Your task to perform on an android device: Open calendar and show me the second week of next month Image 0: 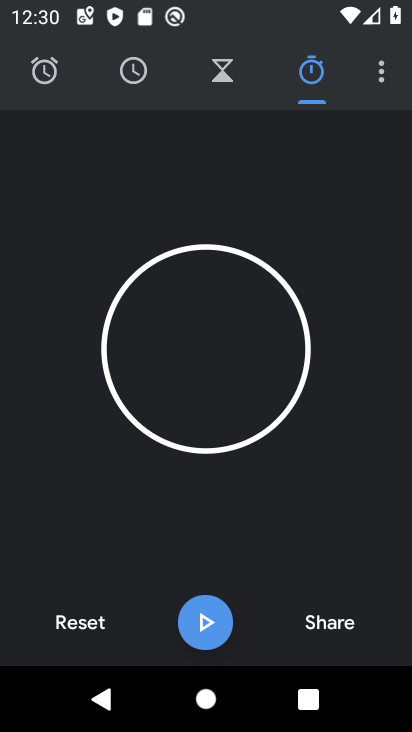
Step 0: press home button
Your task to perform on an android device: Open calendar and show me the second week of next month Image 1: 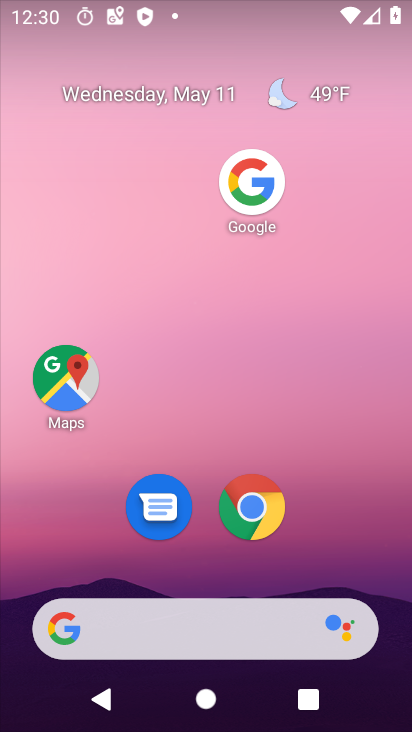
Step 1: drag from (203, 556) to (186, 85)
Your task to perform on an android device: Open calendar and show me the second week of next month Image 2: 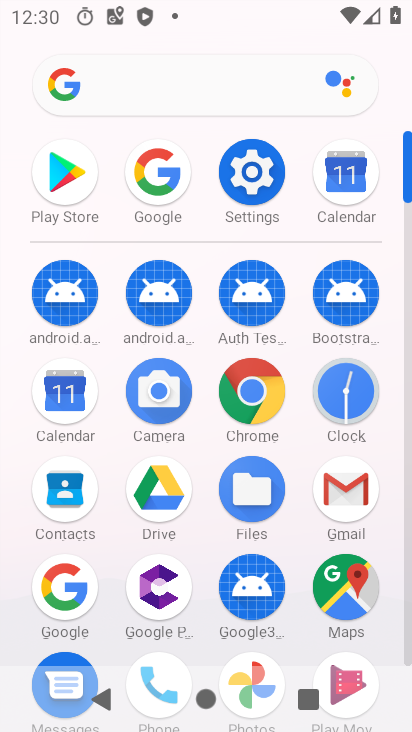
Step 2: click (57, 395)
Your task to perform on an android device: Open calendar and show me the second week of next month Image 3: 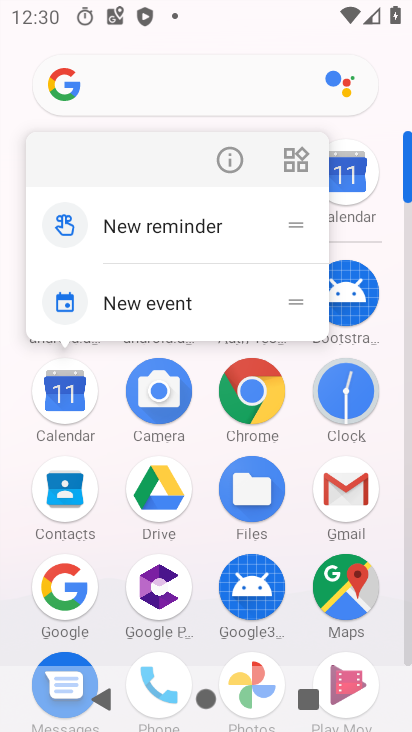
Step 3: click (58, 400)
Your task to perform on an android device: Open calendar and show me the second week of next month Image 4: 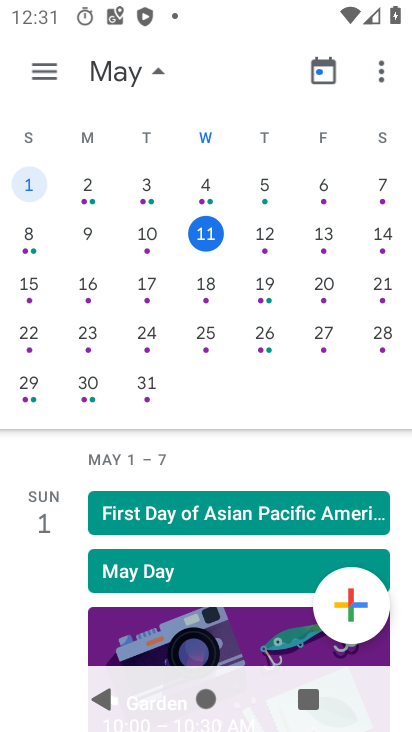
Step 4: drag from (364, 398) to (33, 399)
Your task to perform on an android device: Open calendar and show me the second week of next month Image 5: 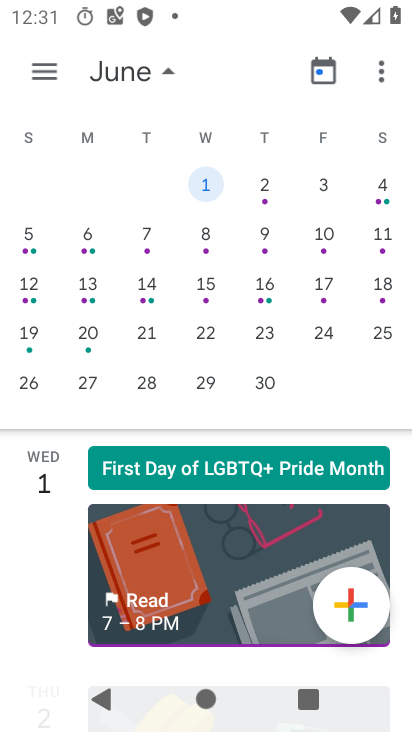
Step 5: click (209, 238)
Your task to perform on an android device: Open calendar and show me the second week of next month Image 6: 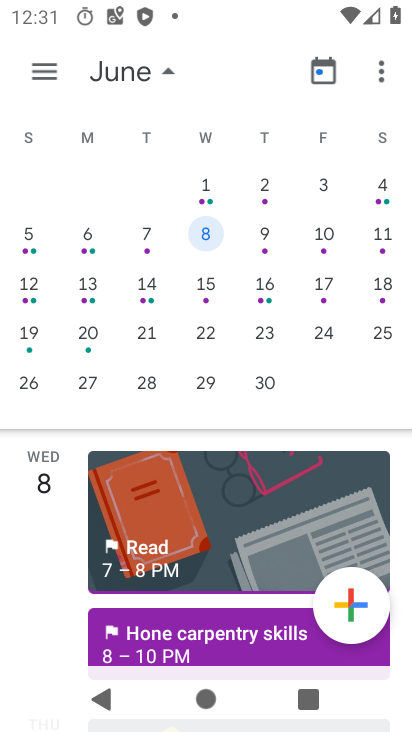
Step 6: task complete